Your task to perform on an android device: change text size in settings app Image 0: 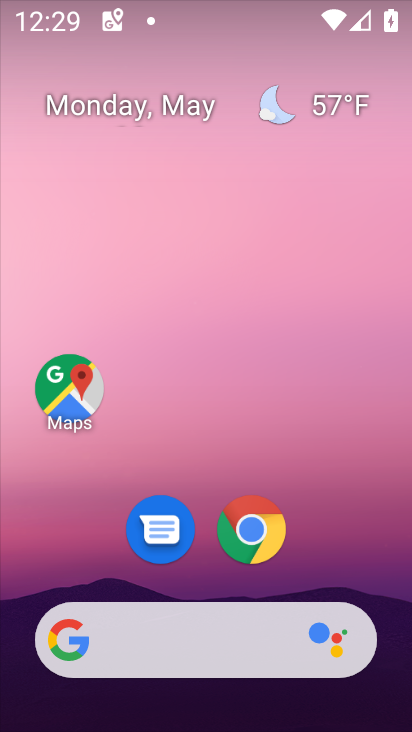
Step 0: drag from (318, 562) to (276, 64)
Your task to perform on an android device: change text size in settings app Image 1: 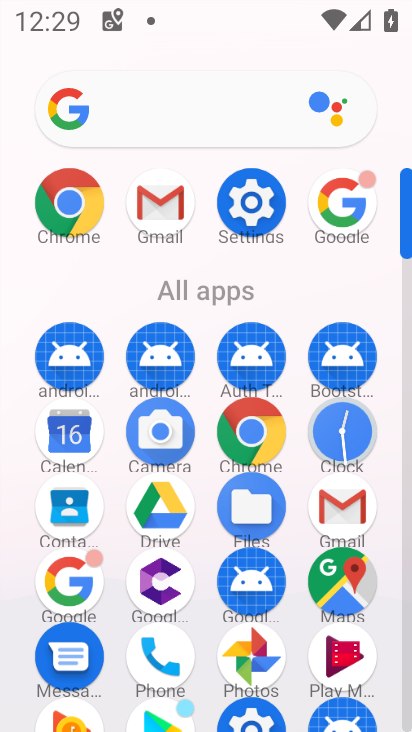
Step 1: click (249, 197)
Your task to perform on an android device: change text size in settings app Image 2: 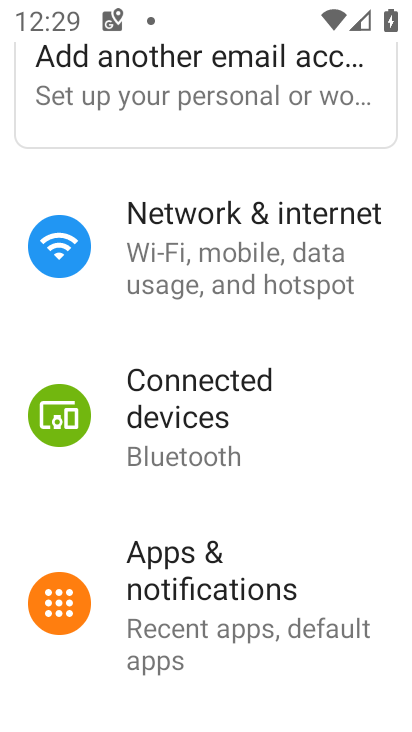
Step 2: drag from (189, 333) to (230, 229)
Your task to perform on an android device: change text size in settings app Image 3: 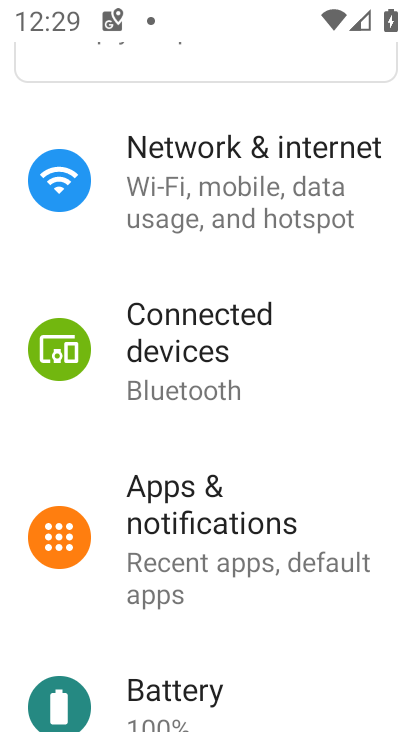
Step 3: drag from (175, 442) to (247, 310)
Your task to perform on an android device: change text size in settings app Image 4: 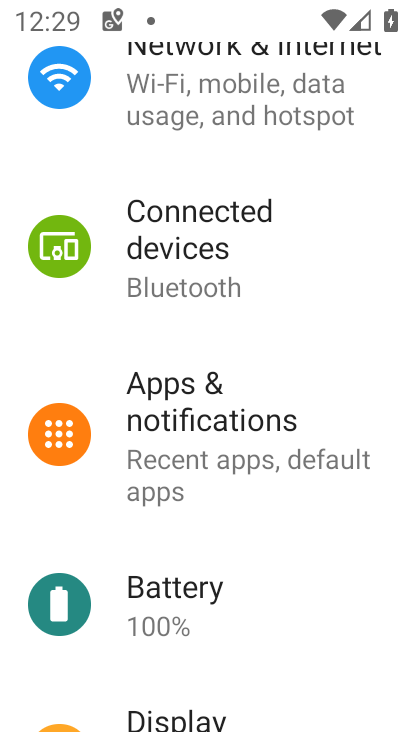
Step 4: drag from (203, 518) to (287, 346)
Your task to perform on an android device: change text size in settings app Image 5: 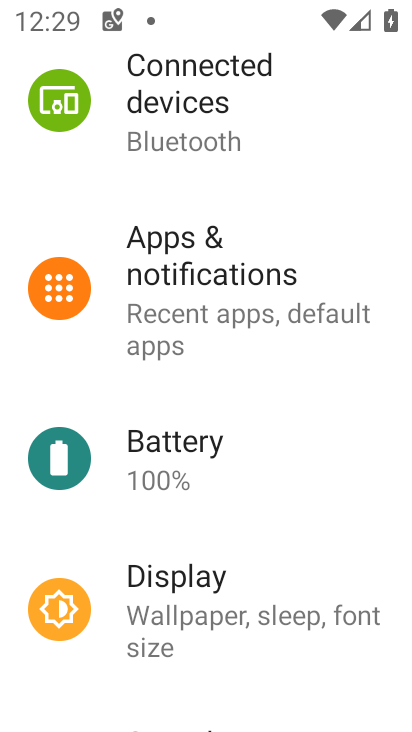
Step 5: drag from (195, 530) to (288, 382)
Your task to perform on an android device: change text size in settings app Image 6: 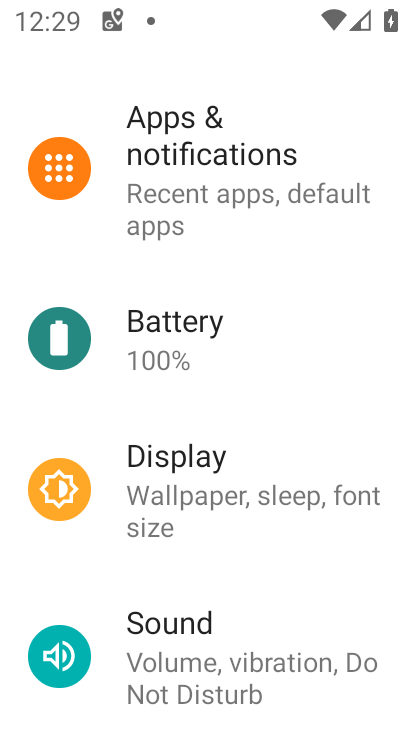
Step 6: drag from (201, 541) to (273, 372)
Your task to perform on an android device: change text size in settings app Image 7: 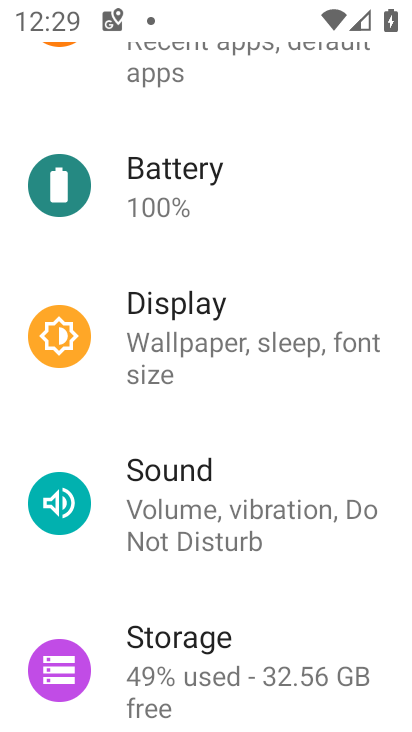
Step 7: drag from (214, 559) to (278, 418)
Your task to perform on an android device: change text size in settings app Image 8: 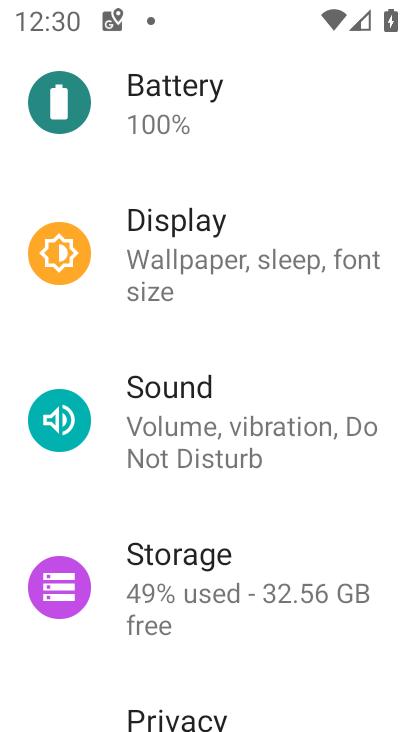
Step 8: drag from (263, 547) to (309, 394)
Your task to perform on an android device: change text size in settings app Image 9: 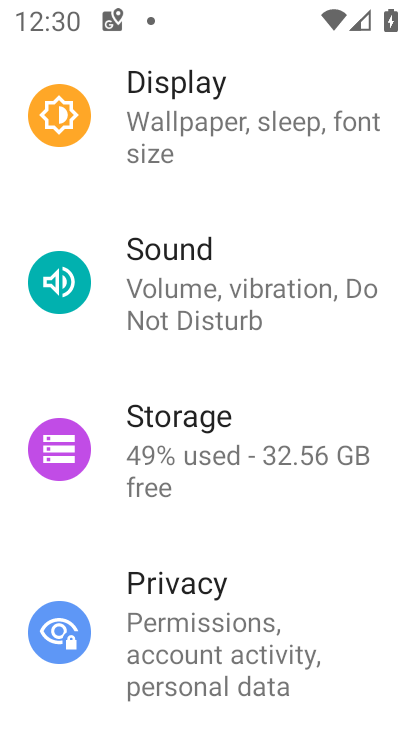
Step 9: drag from (237, 580) to (299, 428)
Your task to perform on an android device: change text size in settings app Image 10: 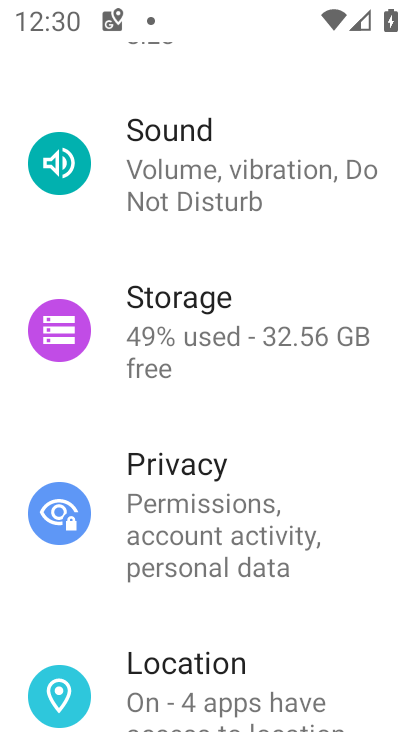
Step 10: drag from (283, 621) to (315, 436)
Your task to perform on an android device: change text size in settings app Image 11: 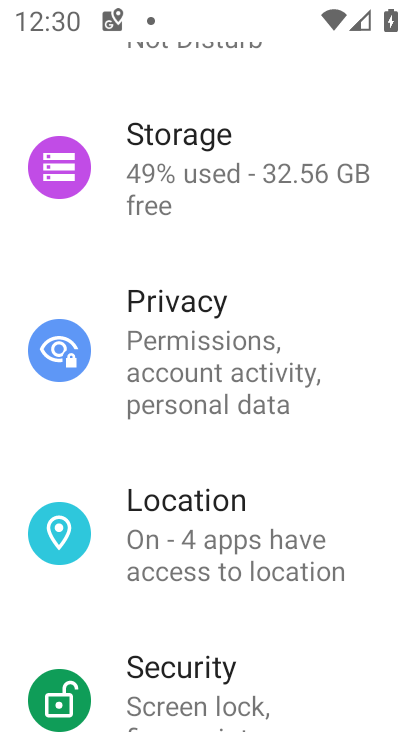
Step 11: drag from (289, 609) to (375, 447)
Your task to perform on an android device: change text size in settings app Image 12: 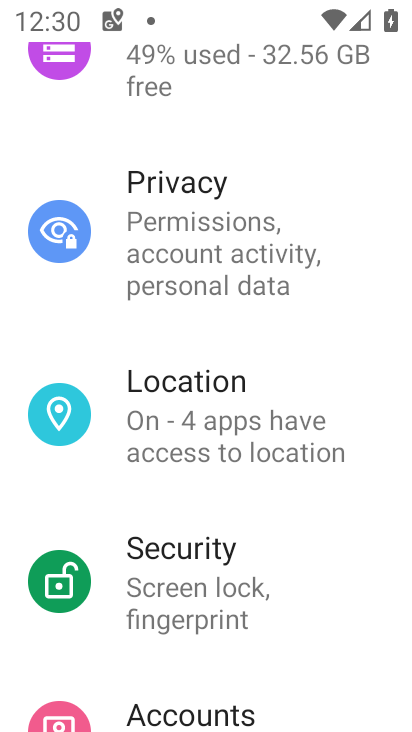
Step 12: drag from (252, 643) to (298, 523)
Your task to perform on an android device: change text size in settings app Image 13: 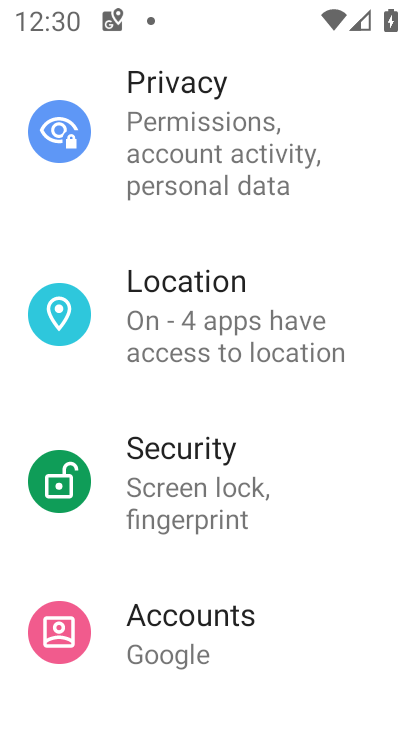
Step 13: drag from (237, 674) to (316, 542)
Your task to perform on an android device: change text size in settings app Image 14: 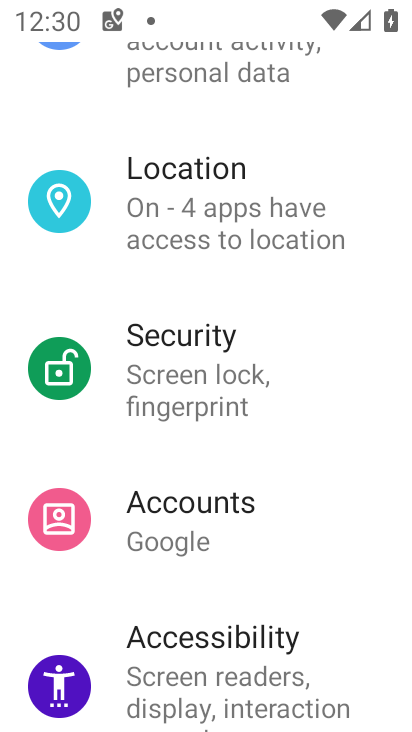
Step 14: click (244, 636)
Your task to perform on an android device: change text size in settings app Image 15: 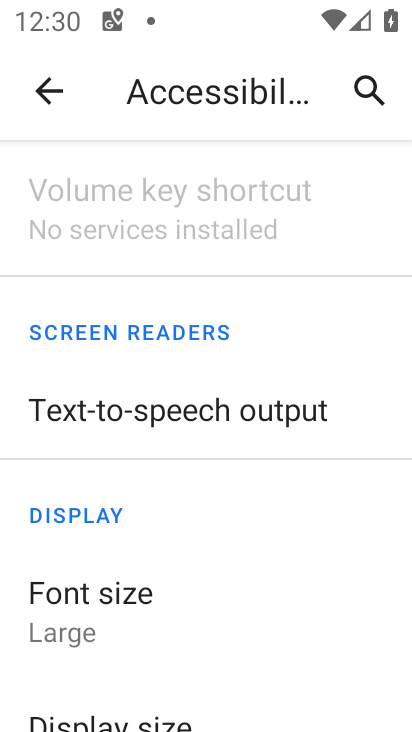
Step 15: click (105, 601)
Your task to perform on an android device: change text size in settings app Image 16: 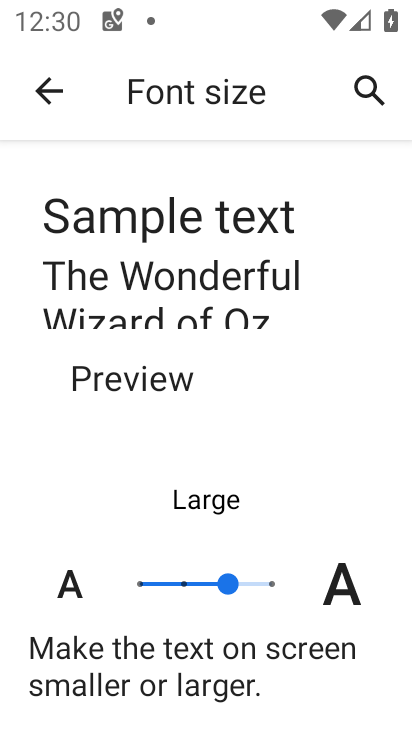
Step 16: click (182, 584)
Your task to perform on an android device: change text size in settings app Image 17: 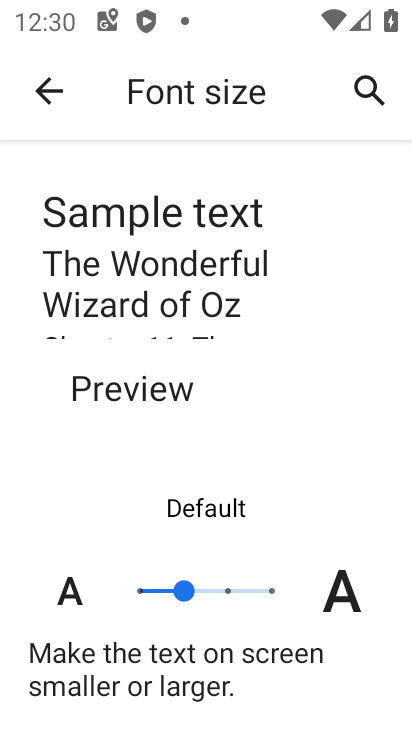
Step 17: task complete